Your task to perform on an android device: allow notifications from all sites in the chrome app Image 0: 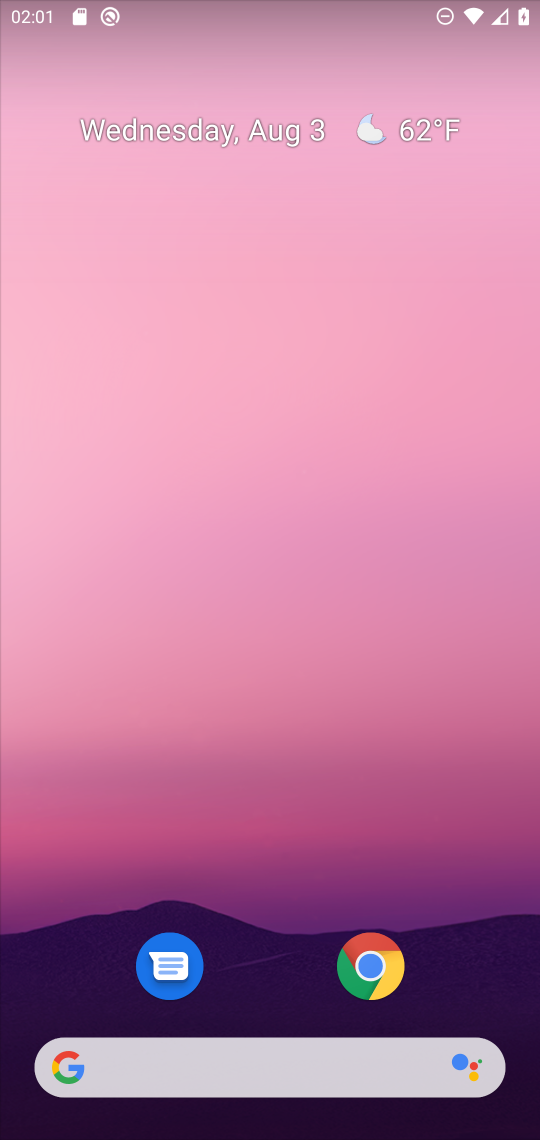
Step 0: click (358, 966)
Your task to perform on an android device: allow notifications from all sites in the chrome app Image 1: 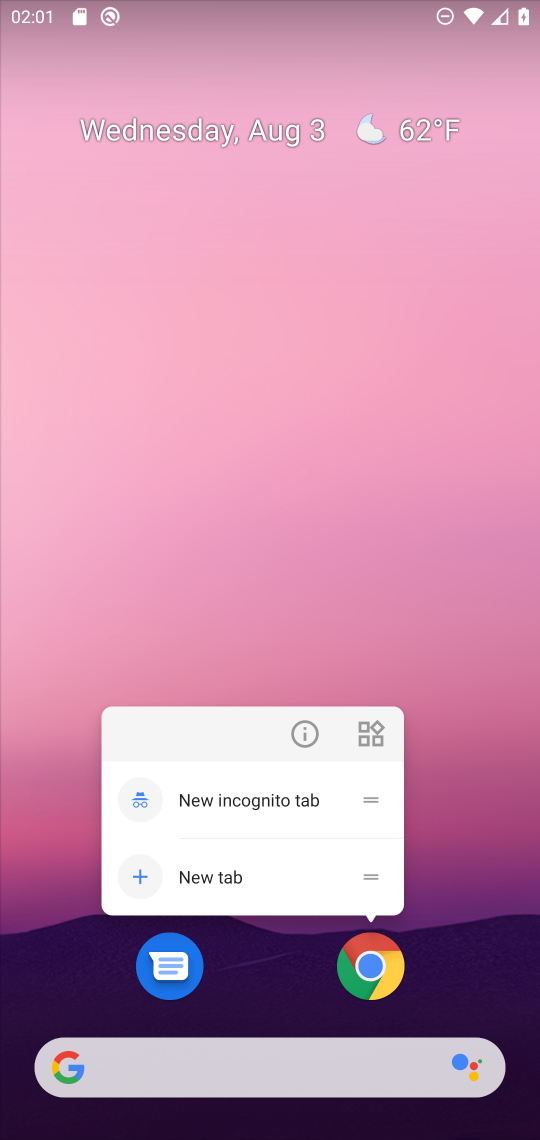
Step 1: click (358, 966)
Your task to perform on an android device: allow notifications from all sites in the chrome app Image 2: 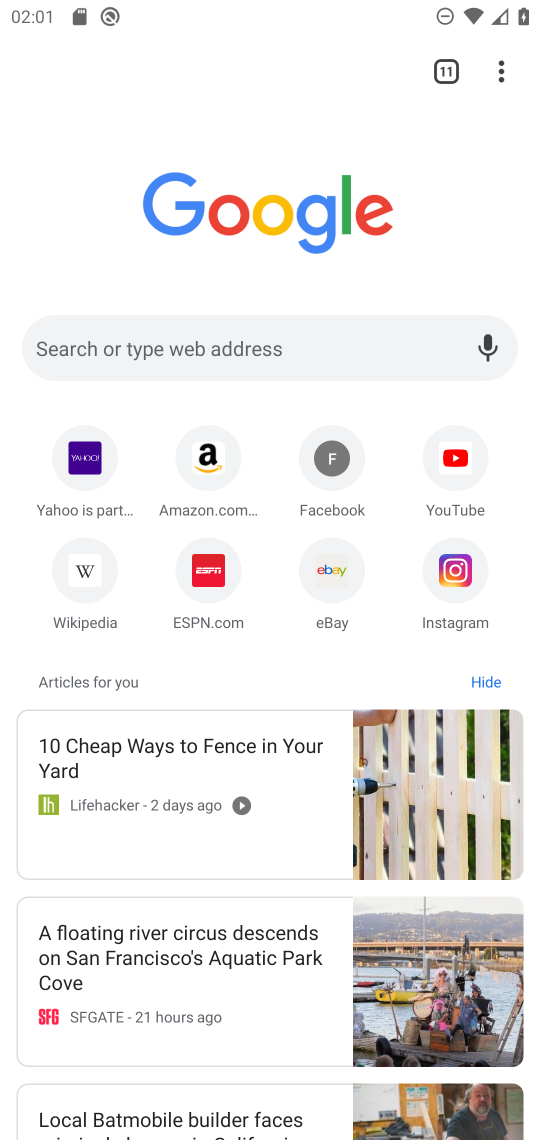
Step 2: click (507, 62)
Your task to perform on an android device: allow notifications from all sites in the chrome app Image 3: 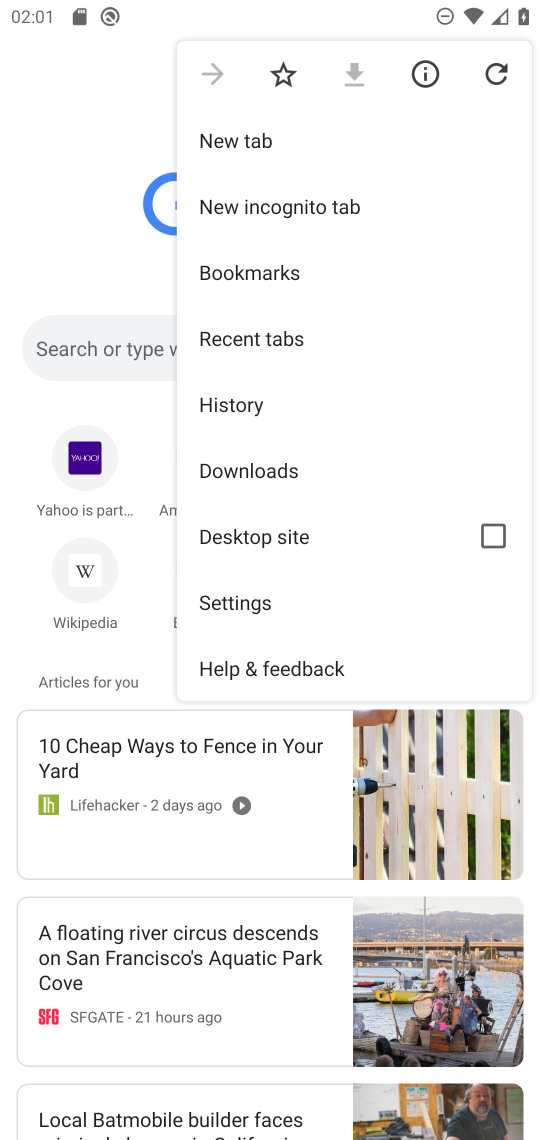
Step 3: click (291, 602)
Your task to perform on an android device: allow notifications from all sites in the chrome app Image 4: 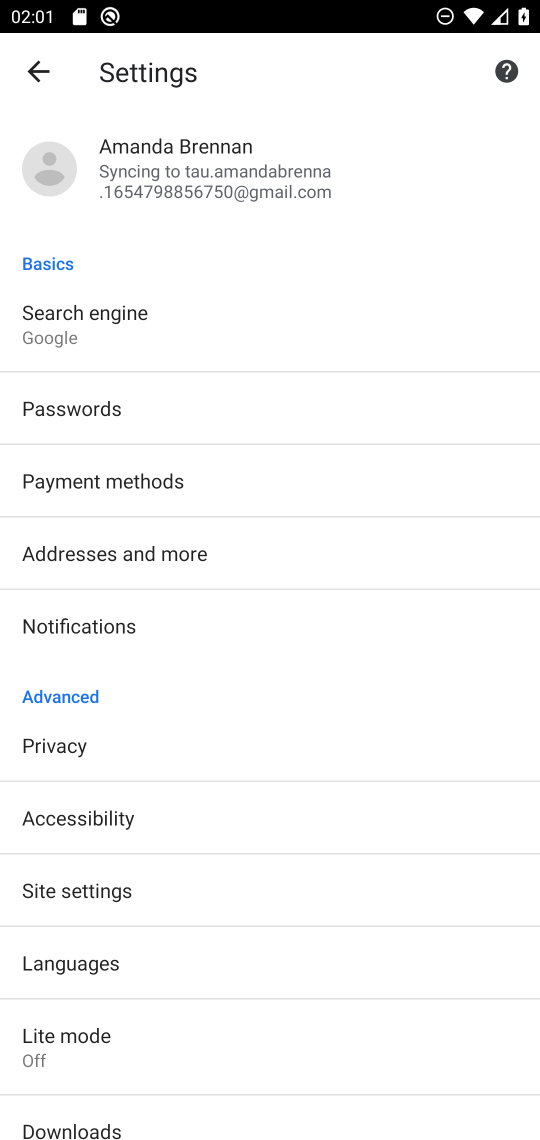
Step 4: click (147, 891)
Your task to perform on an android device: allow notifications from all sites in the chrome app Image 5: 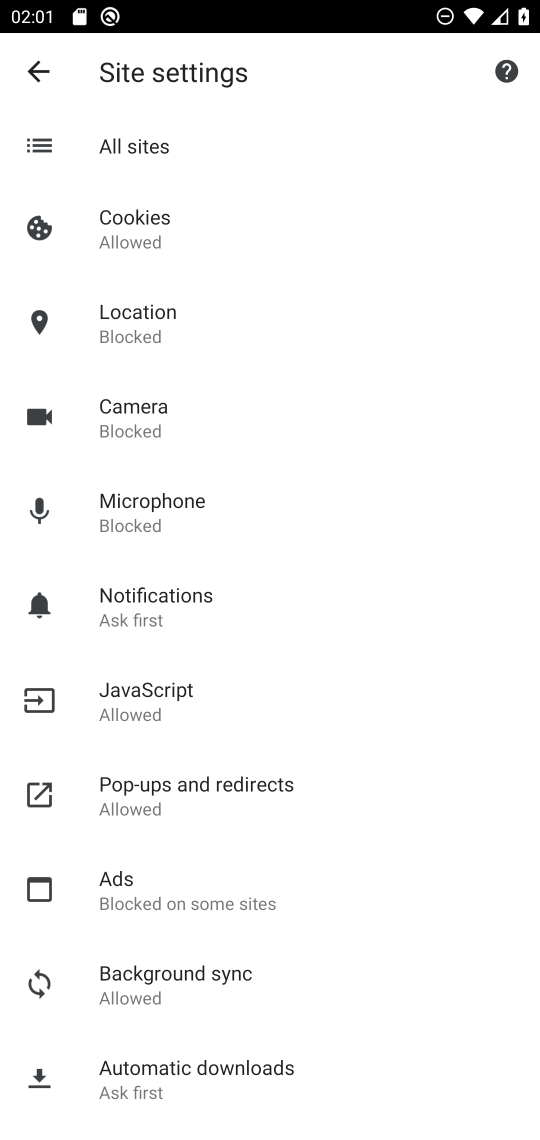
Step 5: click (124, 151)
Your task to perform on an android device: allow notifications from all sites in the chrome app Image 6: 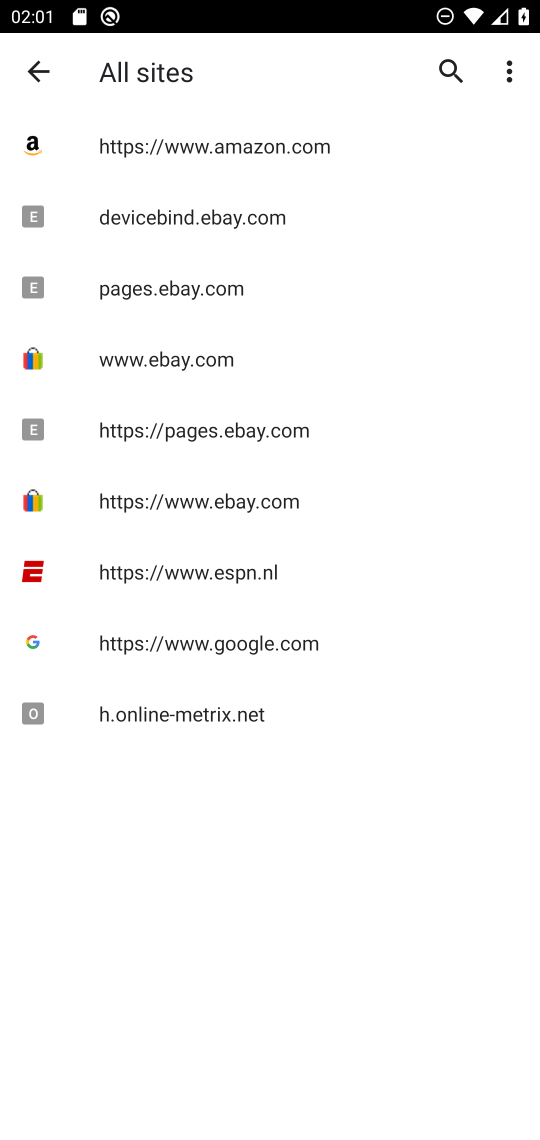
Step 6: click (232, 654)
Your task to perform on an android device: allow notifications from all sites in the chrome app Image 7: 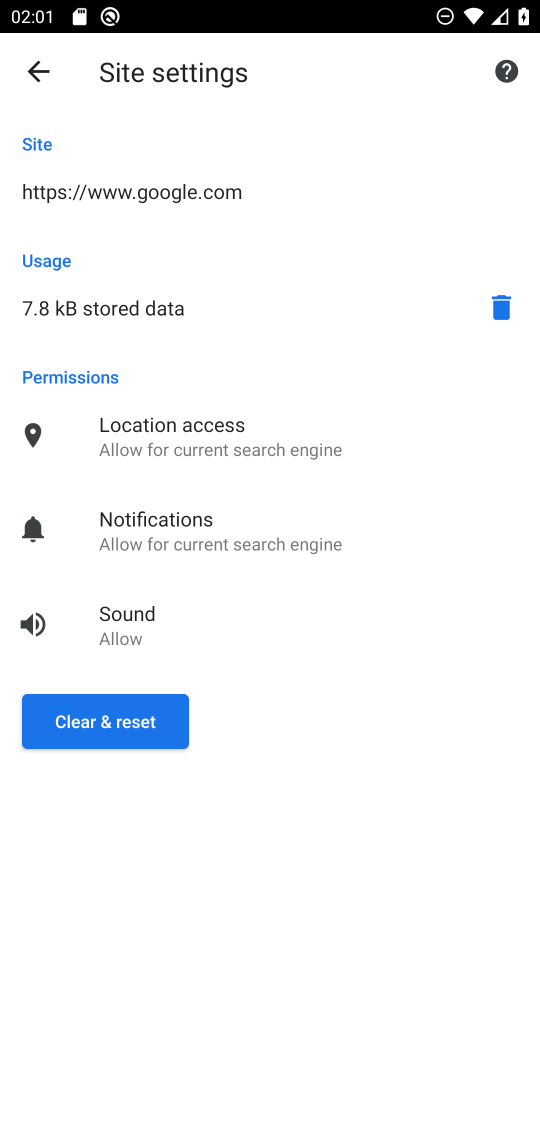
Step 7: click (238, 512)
Your task to perform on an android device: allow notifications from all sites in the chrome app Image 8: 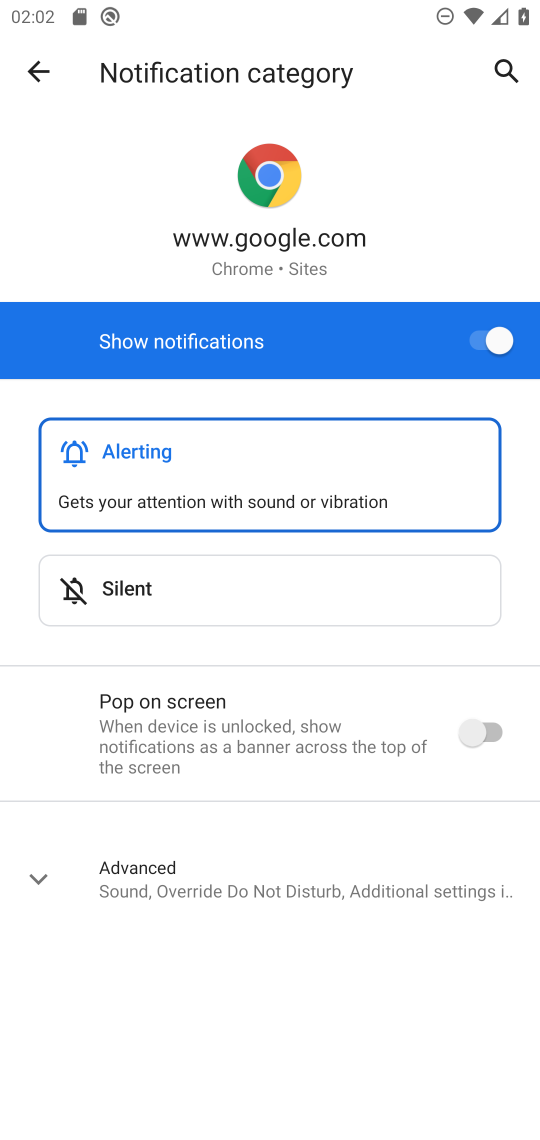
Step 8: task complete